Your task to perform on an android device: uninstall "Booking.com: Hotels and more" Image 0: 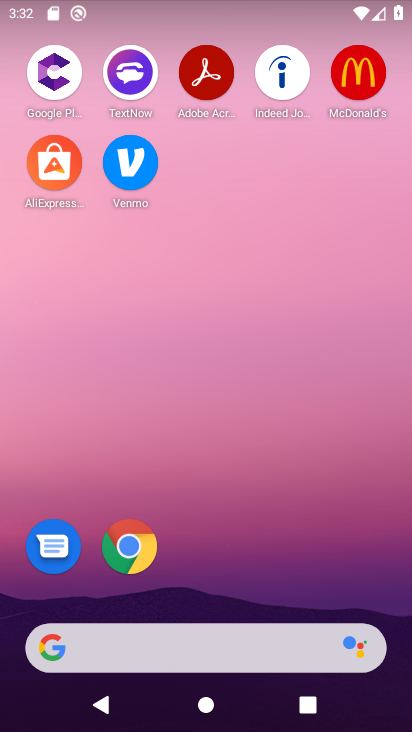
Step 0: drag from (376, 600) to (352, 147)
Your task to perform on an android device: uninstall "Booking.com: Hotels and more" Image 1: 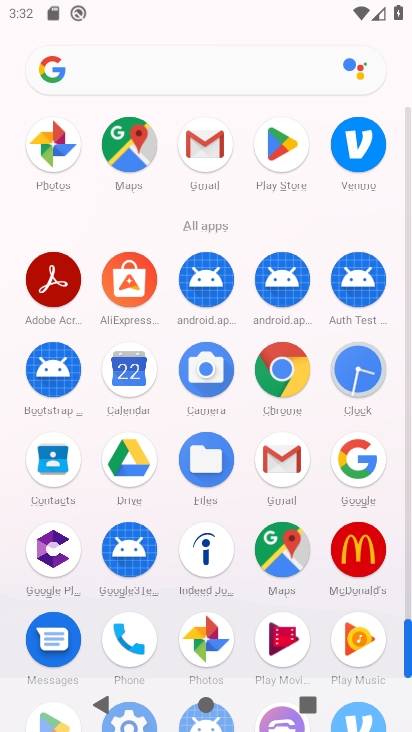
Step 1: click (409, 601)
Your task to perform on an android device: uninstall "Booking.com: Hotels and more" Image 2: 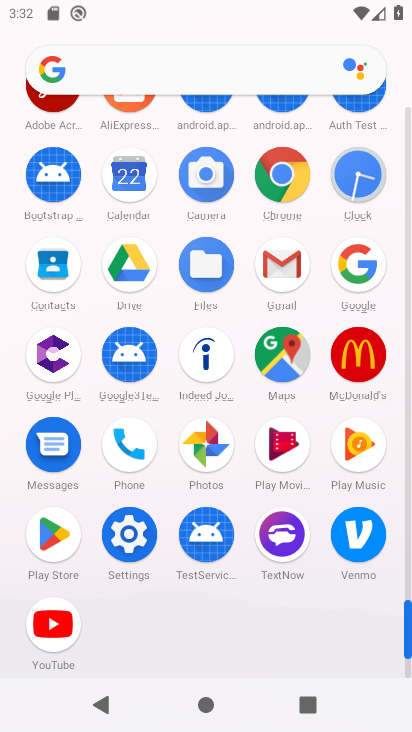
Step 2: click (52, 534)
Your task to perform on an android device: uninstall "Booking.com: Hotels and more" Image 3: 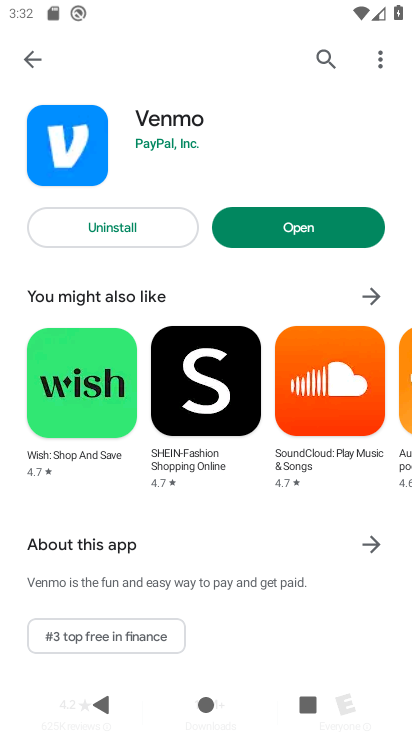
Step 3: click (319, 55)
Your task to perform on an android device: uninstall "Booking.com: Hotels and more" Image 4: 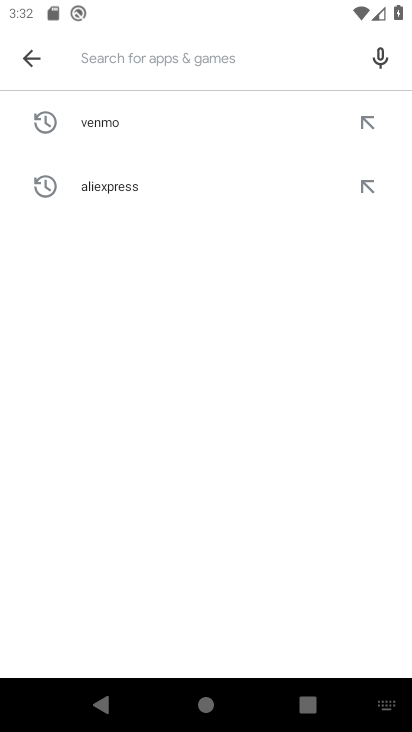
Step 4: type "Booking.com: Hotels and more"
Your task to perform on an android device: uninstall "Booking.com: Hotels and more" Image 5: 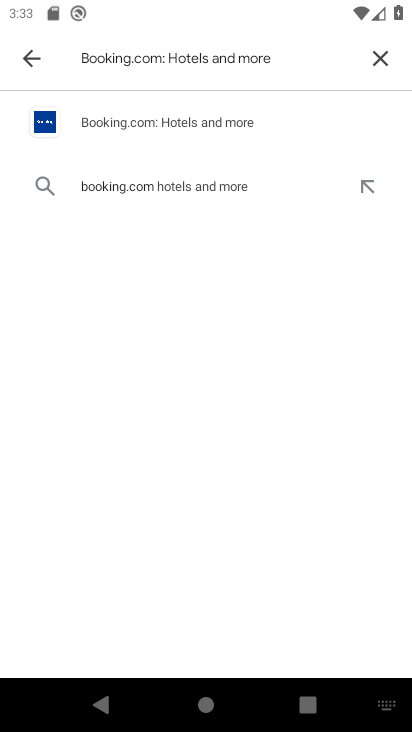
Step 5: click (121, 116)
Your task to perform on an android device: uninstall "Booking.com: Hotels and more" Image 6: 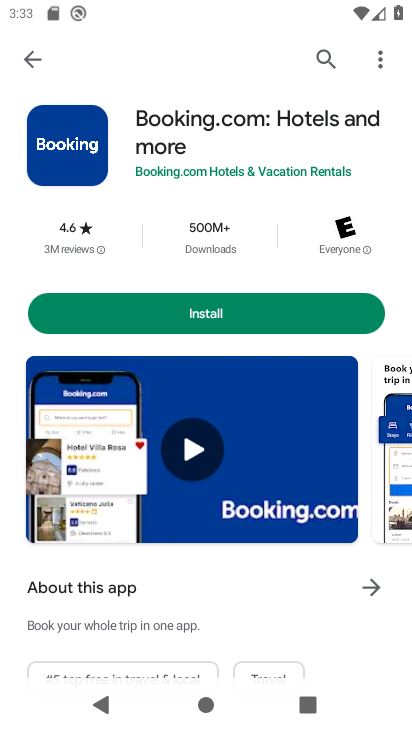
Step 6: task complete